Your task to perform on an android device: Do I have any events tomorrow? Image 0: 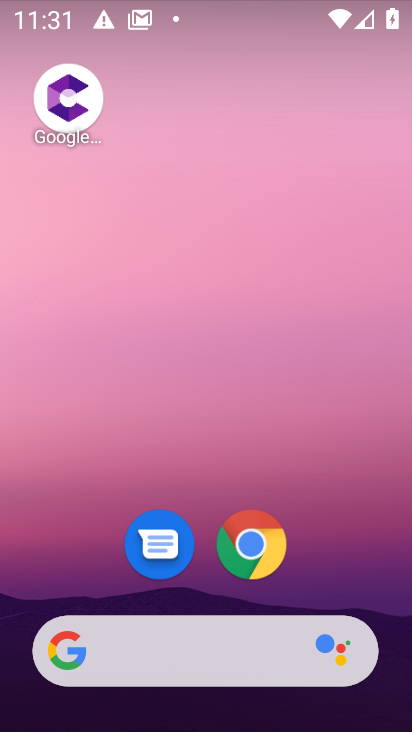
Step 0: drag from (393, 630) to (367, 80)
Your task to perform on an android device: Do I have any events tomorrow? Image 1: 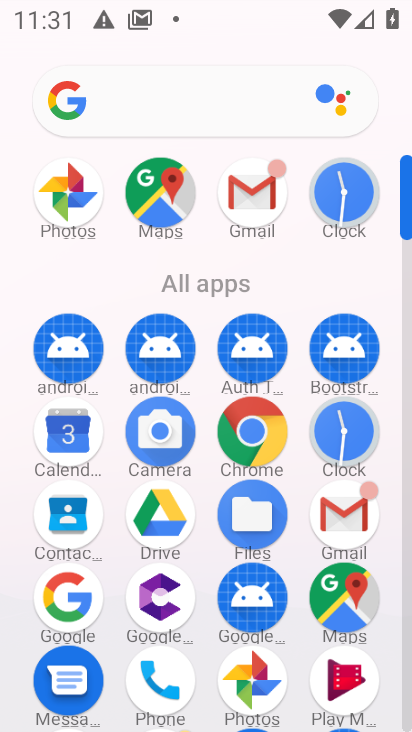
Step 1: drag from (204, 645) to (218, 344)
Your task to perform on an android device: Do I have any events tomorrow? Image 2: 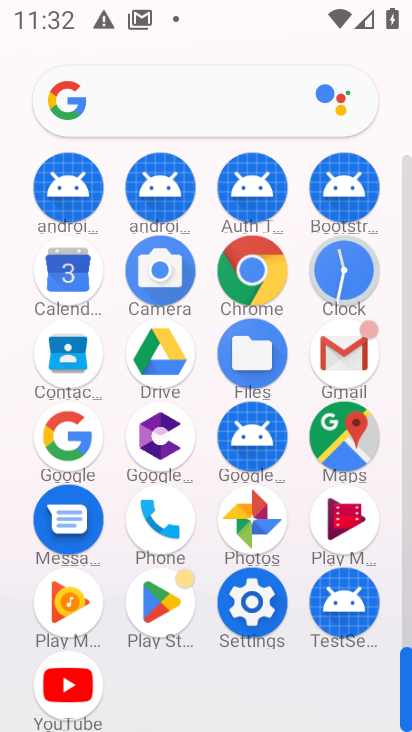
Step 2: click (257, 598)
Your task to perform on an android device: Do I have any events tomorrow? Image 3: 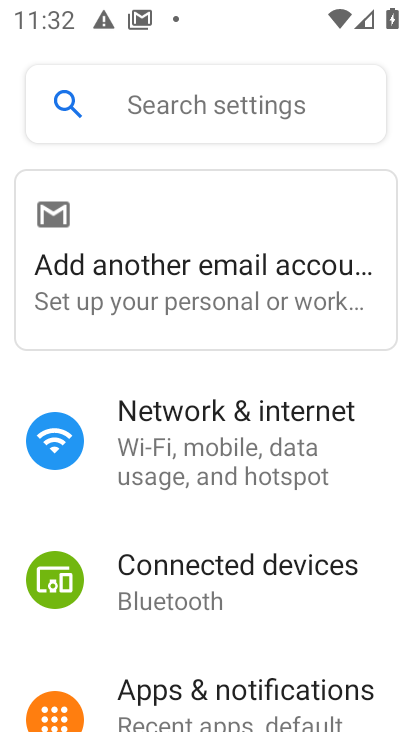
Step 3: drag from (213, 628) to (233, 298)
Your task to perform on an android device: Do I have any events tomorrow? Image 4: 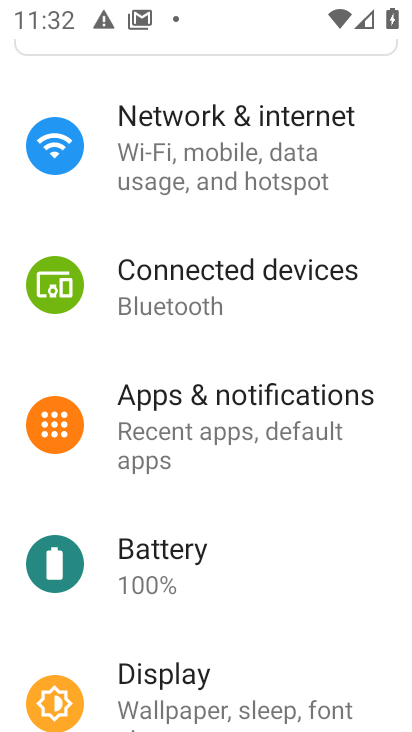
Step 4: press home button
Your task to perform on an android device: Do I have any events tomorrow? Image 5: 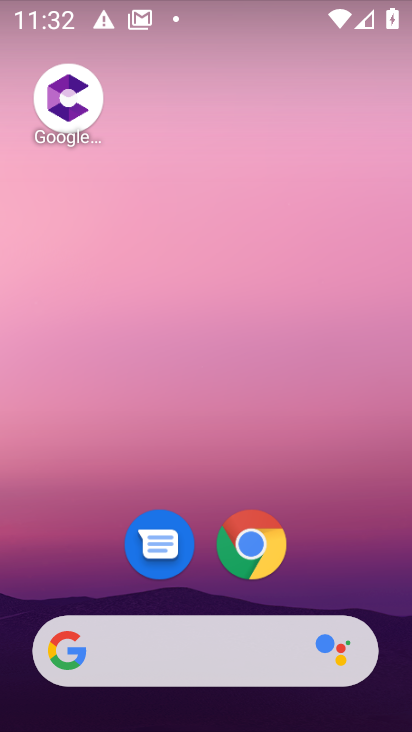
Step 5: drag from (387, 679) to (316, 149)
Your task to perform on an android device: Do I have any events tomorrow? Image 6: 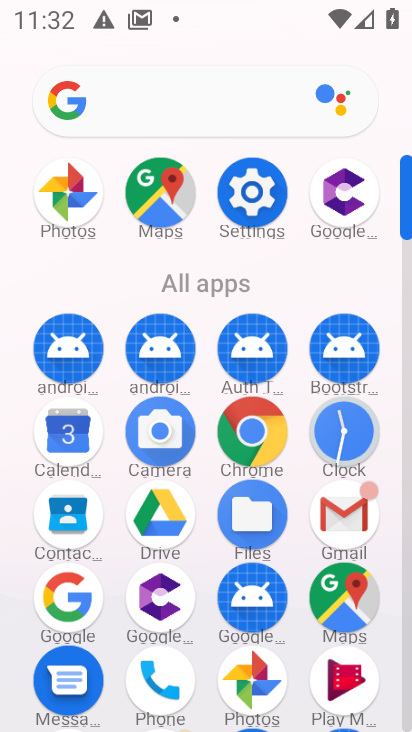
Step 6: click (67, 436)
Your task to perform on an android device: Do I have any events tomorrow? Image 7: 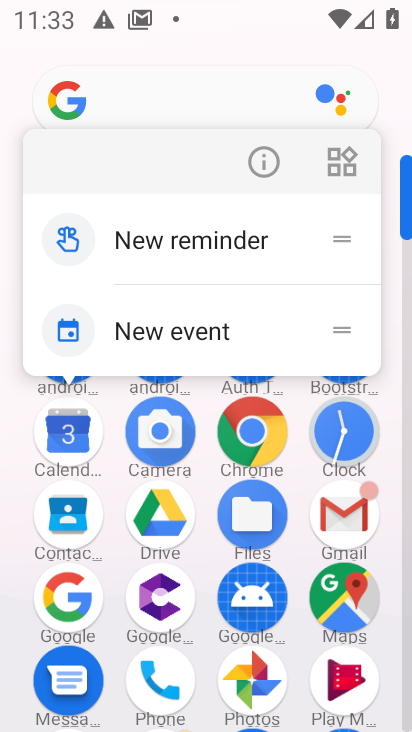
Step 7: click (67, 426)
Your task to perform on an android device: Do I have any events tomorrow? Image 8: 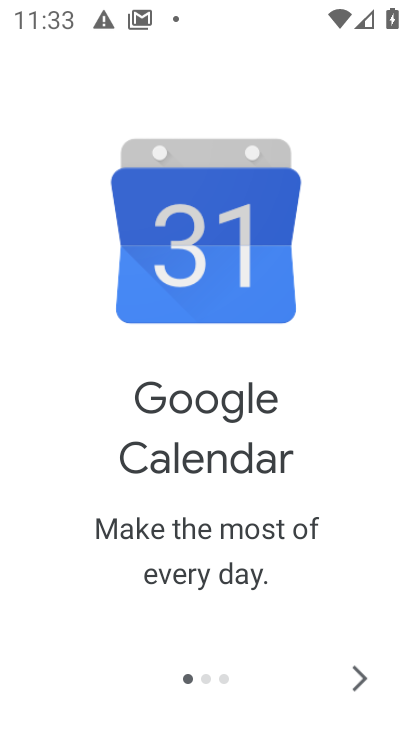
Step 8: click (357, 676)
Your task to perform on an android device: Do I have any events tomorrow? Image 9: 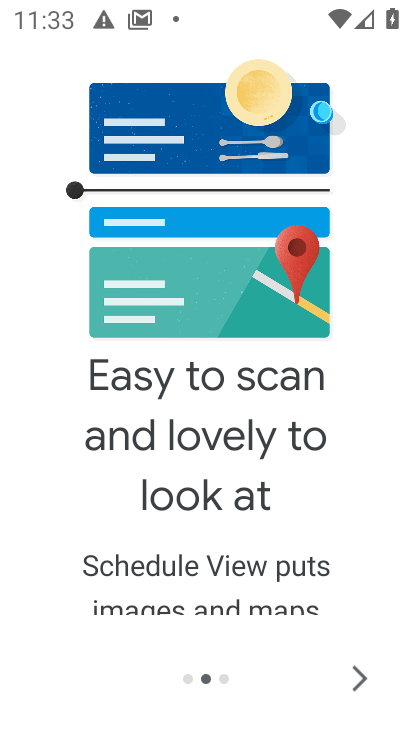
Step 9: click (356, 676)
Your task to perform on an android device: Do I have any events tomorrow? Image 10: 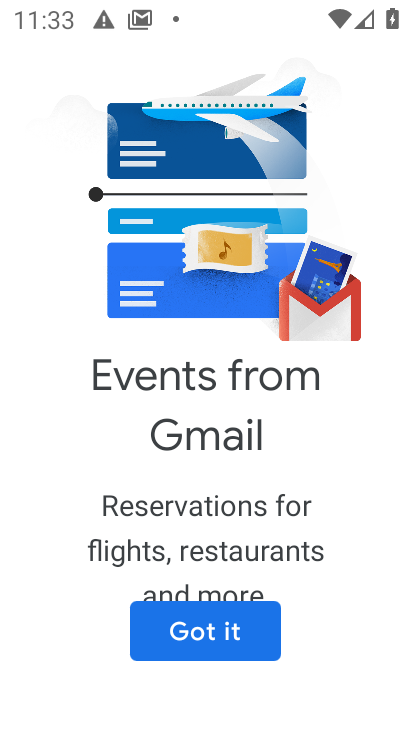
Step 10: click (190, 606)
Your task to perform on an android device: Do I have any events tomorrow? Image 11: 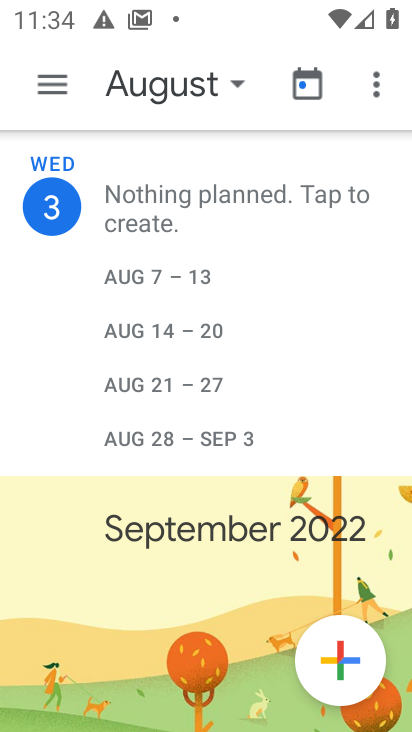
Step 11: click (236, 84)
Your task to perform on an android device: Do I have any events tomorrow? Image 12: 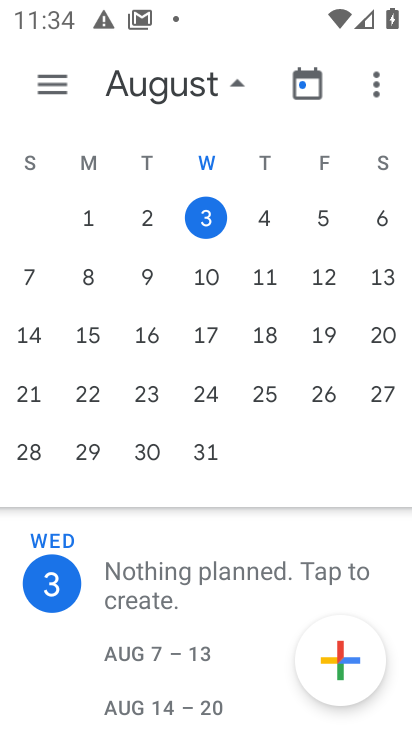
Step 12: click (268, 212)
Your task to perform on an android device: Do I have any events tomorrow? Image 13: 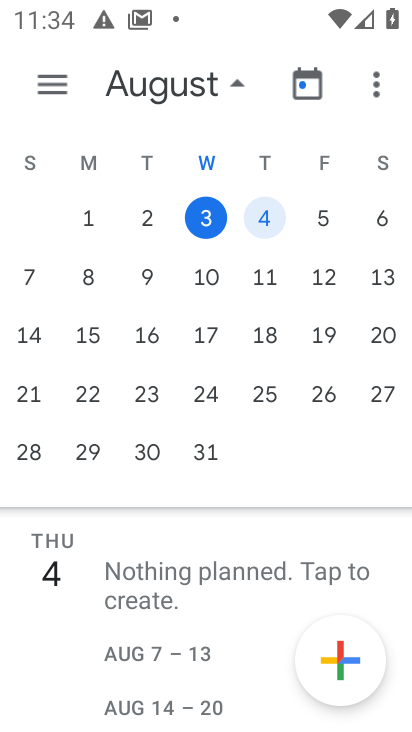
Step 13: click (39, 86)
Your task to perform on an android device: Do I have any events tomorrow? Image 14: 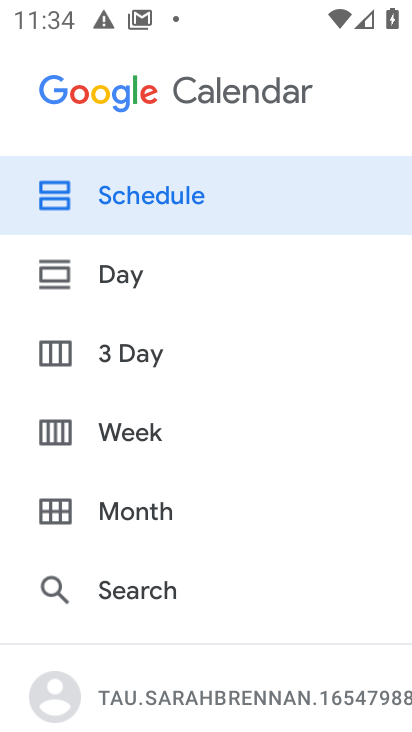
Step 14: click (154, 190)
Your task to perform on an android device: Do I have any events tomorrow? Image 15: 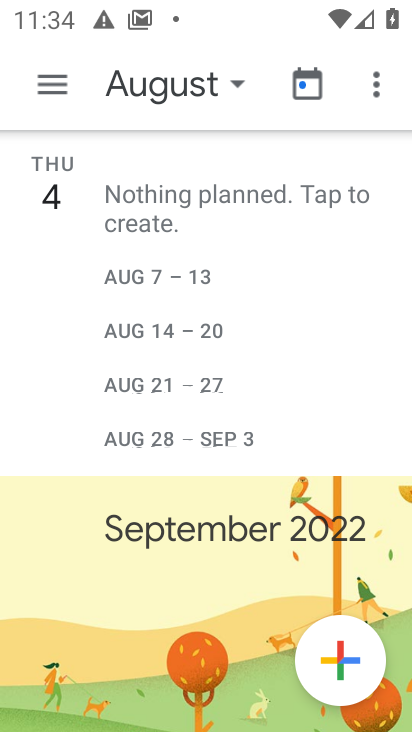
Step 15: task complete